Your task to perform on an android device: change the clock style Image 0: 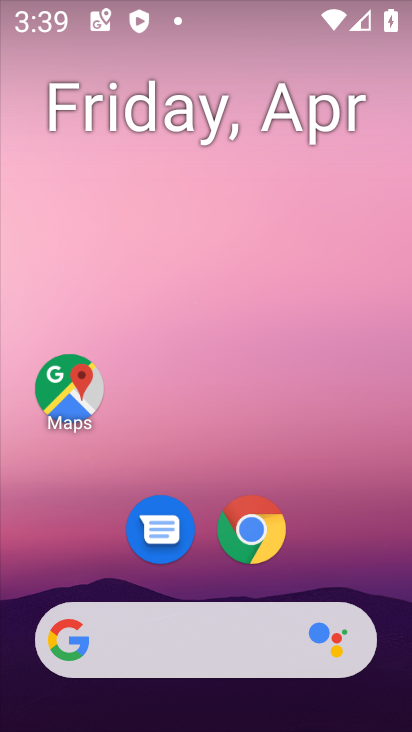
Step 0: drag from (325, 533) to (309, 71)
Your task to perform on an android device: change the clock style Image 1: 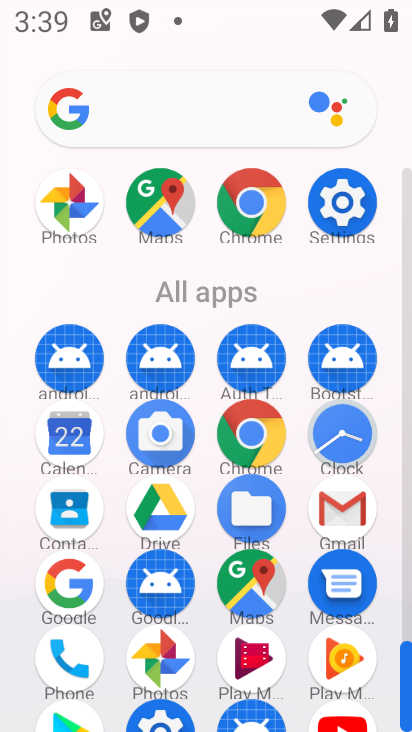
Step 1: click (338, 434)
Your task to perform on an android device: change the clock style Image 2: 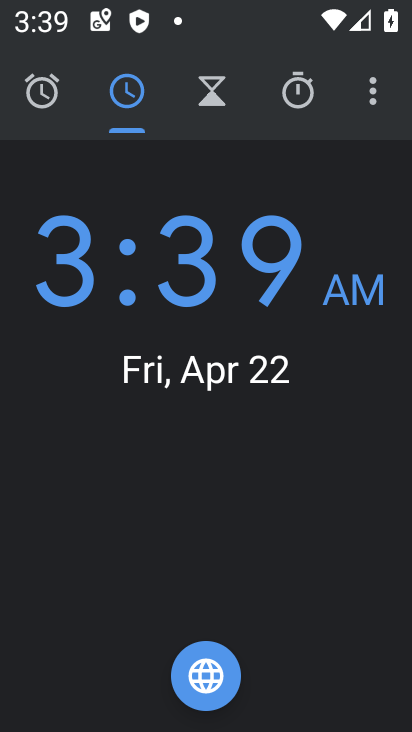
Step 2: click (369, 92)
Your task to perform on an android device: change the clock style Image 3: 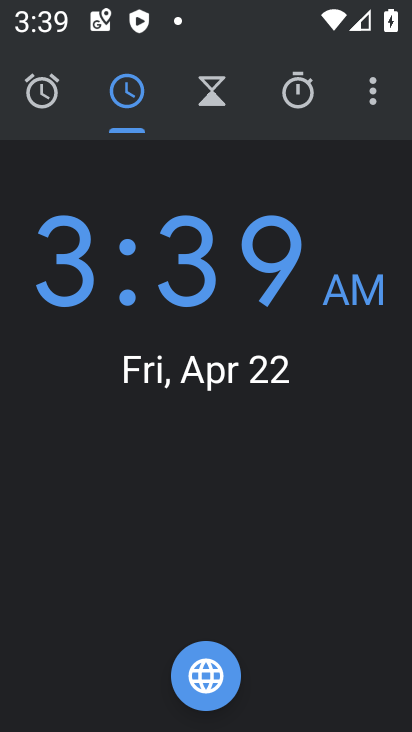
Step 3: click (369, 99)
Your task to perform on an android device: change the clock style Image 4: 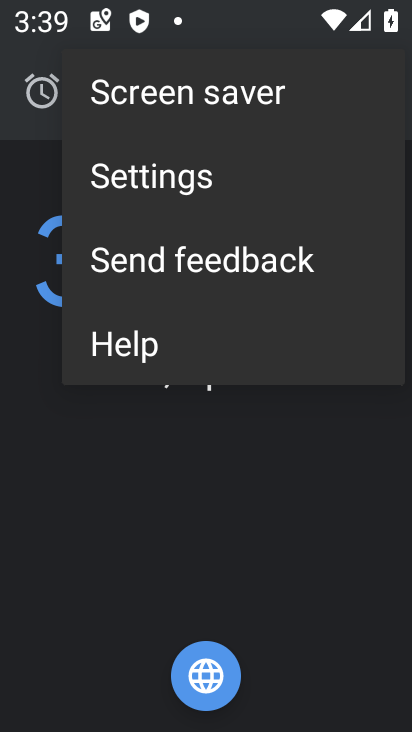
Step 4: click (304, 175)
Your task to perform on an android device: change the clock style Image 5: 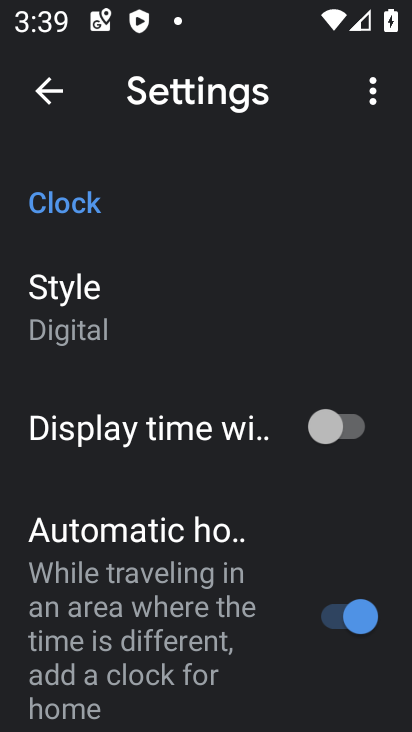
Step 5: click (99, 312)
Your task to perform on an android device: change the clock style Image 6: 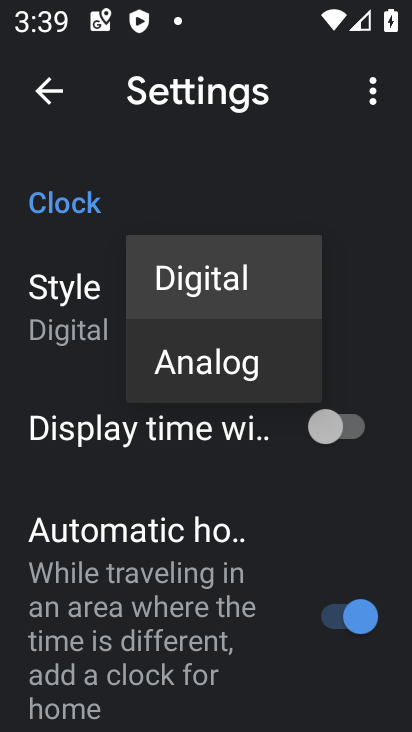
Step 6: click (161, 367)
Your task to perform on an android device: change the clock style Image 7: 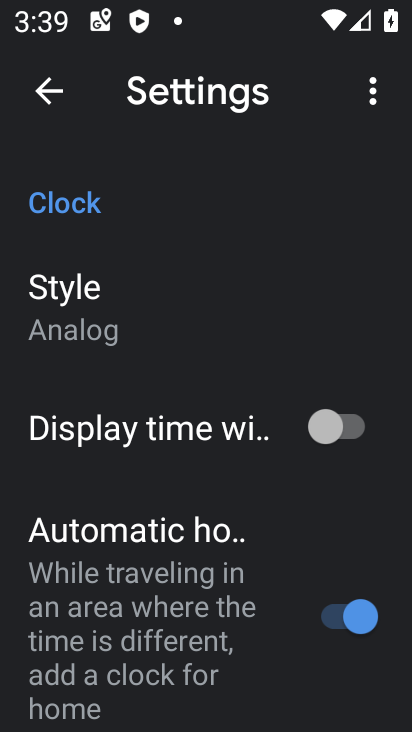
Step 7: task complete